Your task to perform on an android device: check android version Image 0: 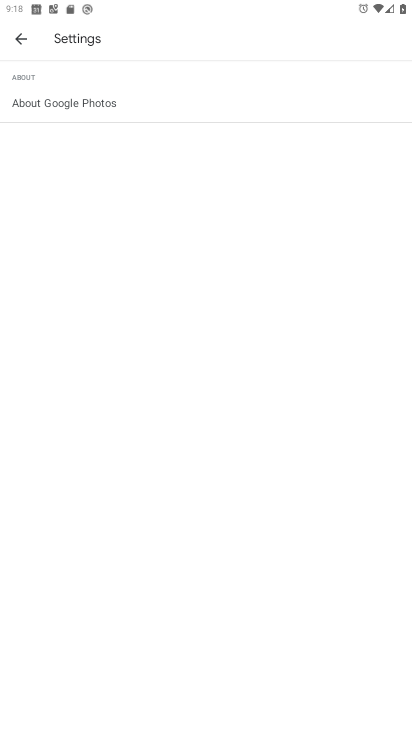
Step 0: click (15, 38)
Your task to perform on an android device: check android version Image 1: 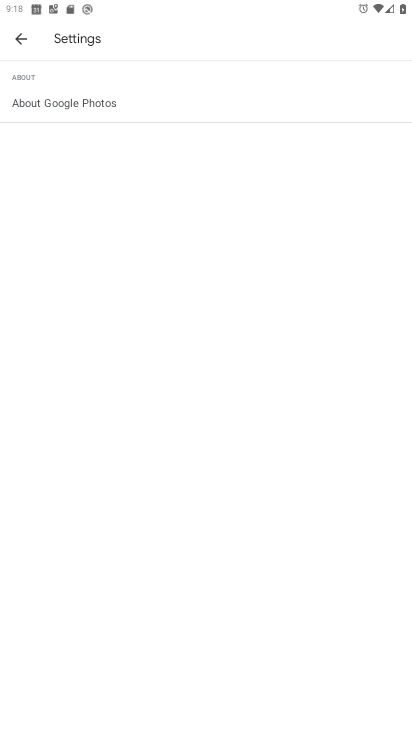
Step 1: press home button
Your task to perform on an android device: check android version Image 2: 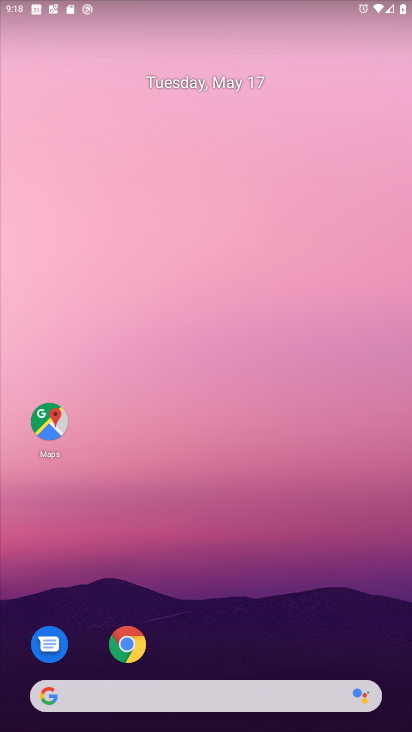
Step 2: drag from (232, 662) to (204, 16)
Your task to perform on an android device: check android version Image 3: 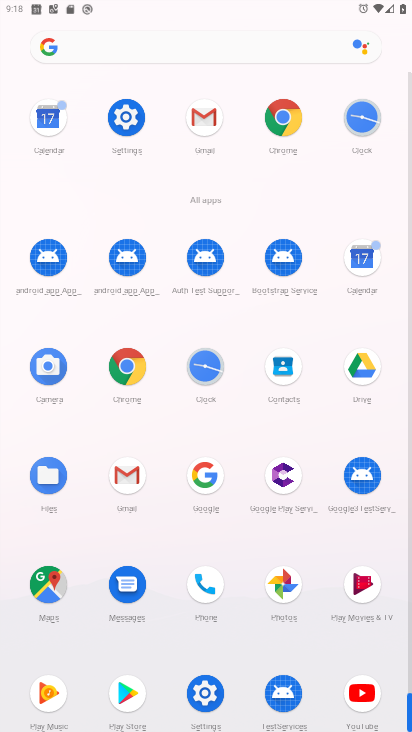
Step 3: click (122, 105)
Your task to perform on an android device: check android version Image 4: 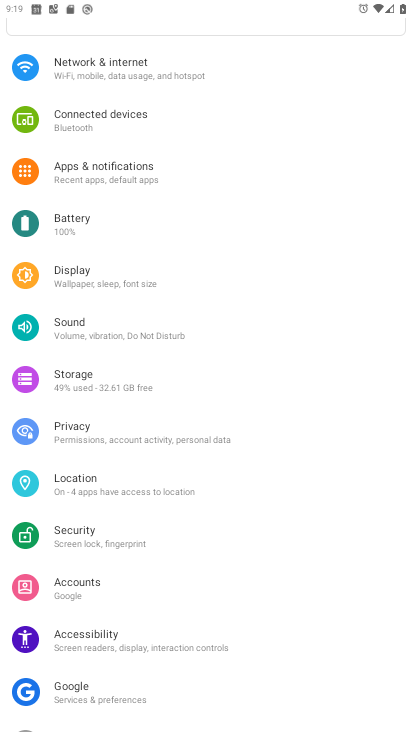
Step 4: drag from (161, 683) to (171, 235)
Your task to perform on an android device: check android version Image 5: 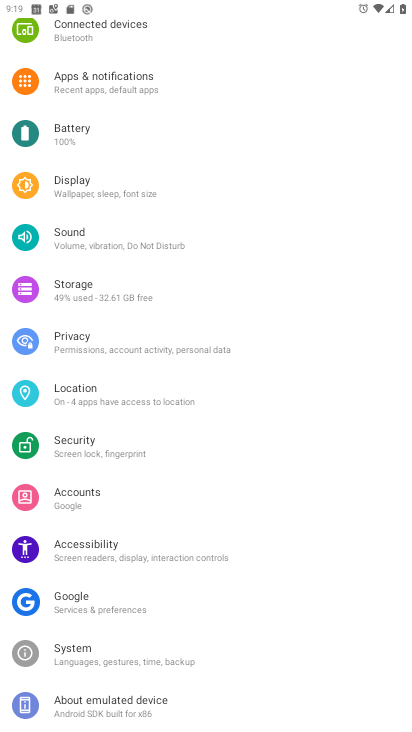
Step 5: click (179, 706)
Your task to perform on an android device: check android version Image 6: 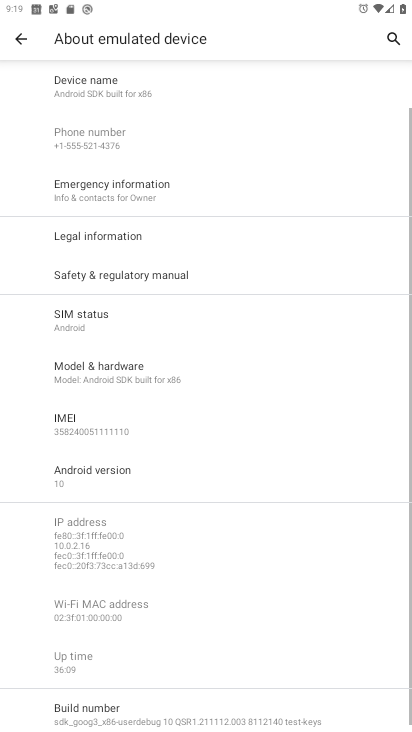
Step 6: click (144, 479)
Your task to perform on an android device: check android version Image 7: 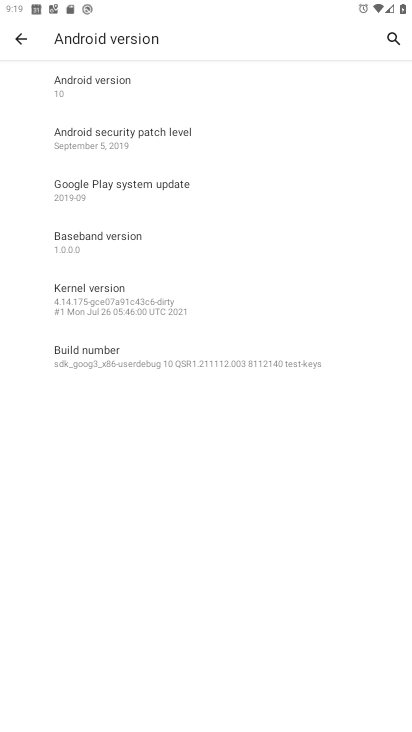
Step 7: click (104, 85)
Your task to perform on an android device: check android version Image 8: 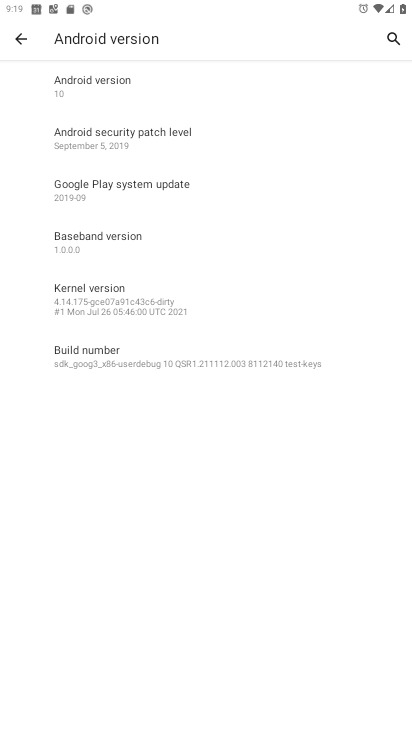
Step 8: task complete